Your task to perform on an android device: Is it going to rain today? Image 0: 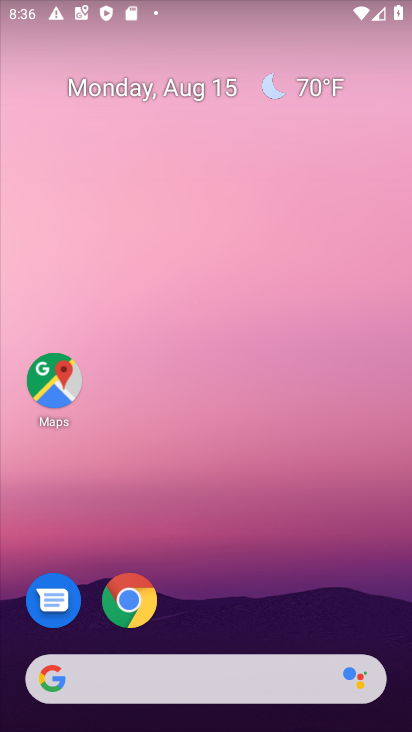
Step 0: click (269, 90)
Your task to perform on an android device: Is it going to rain today? Image 1: 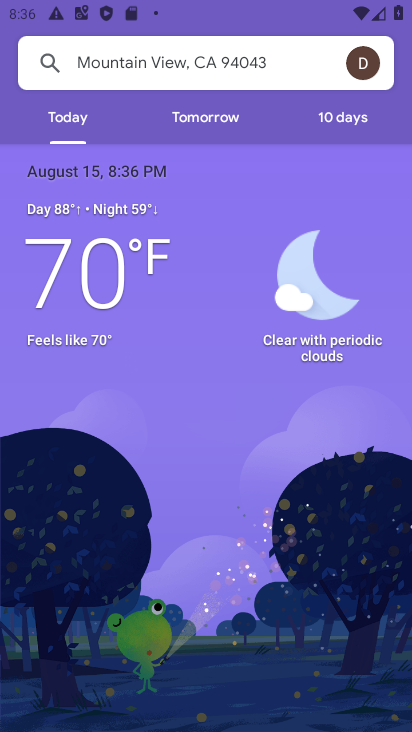
Step 1: click (336, 114)
Your task to perform on an android device: Is it going to rain today? Image 2: 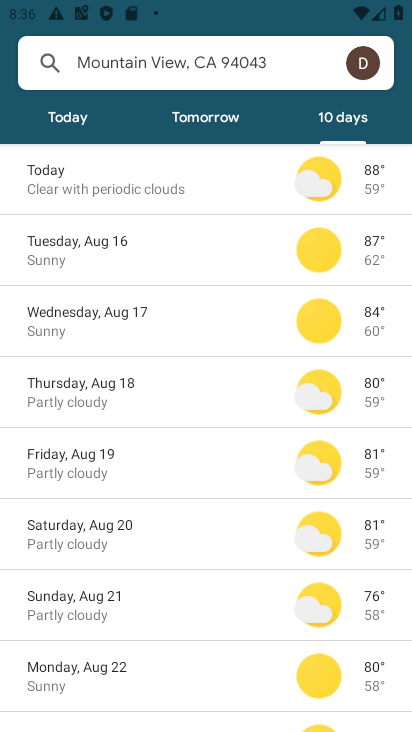
Step 2: click (85, 172)
Your task to perform on an android device: Is it going to rain today? Image 3: 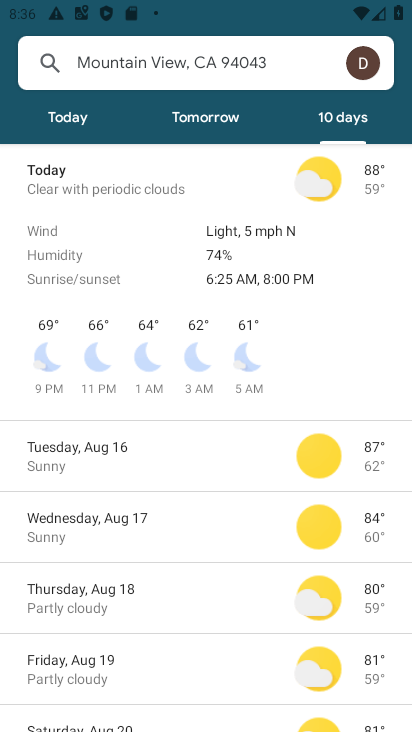
Step 3: task complete